Your task to perform on an android device: turn vacation reply on in the gmail app Image 0: 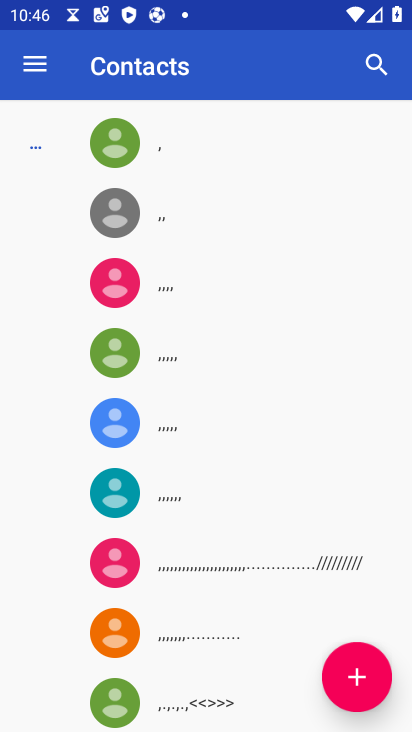
Step 0: press home button
Your task to perform on an android device: turn vacation reply on in the gmail app Image 1: 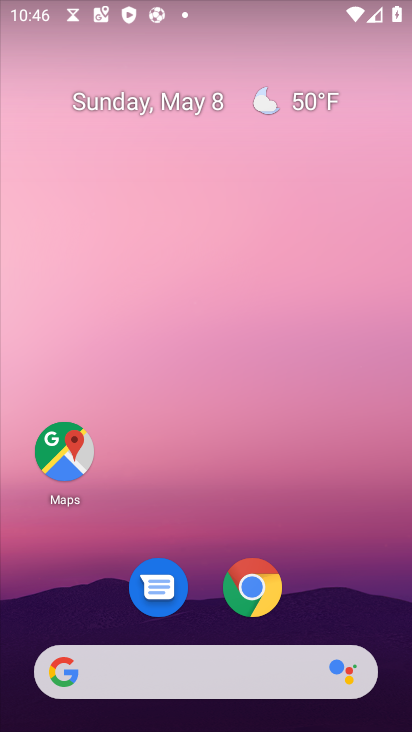
Step 1: drag from (327, 597) to (111, 103)
Your task to perform on an android device: turn vacation reply on in the gmail app Image 2: 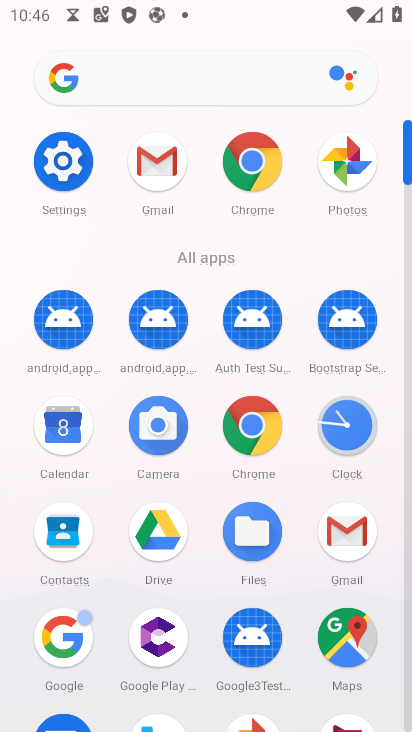
Step 2: click (162, 160)
Your task to perform on an android device: turn vacation reply on in the gmail app Image 3: 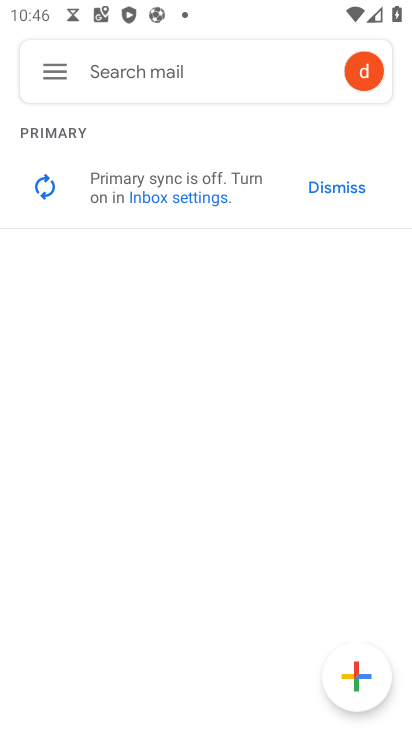
Step 3: click (61, 74)
Your task to perform on an android device: turn vacation reply on in the gmail app Image 4: 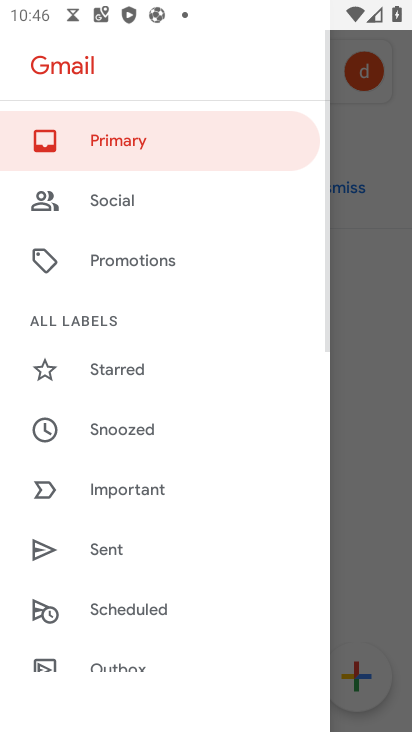
Step 4: drag from (235, 640) to (237, 203)
Your task to perform on an android device: turn vacation reply on in the gmail app Image 5: 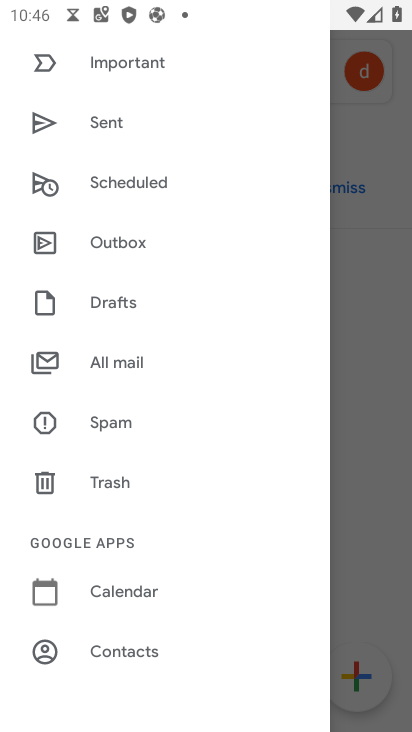
Step 5: drag from (223, 637) to (203, 462)
Your task to perform on an android device: turn vacation reply on in the gmail app Image 6: 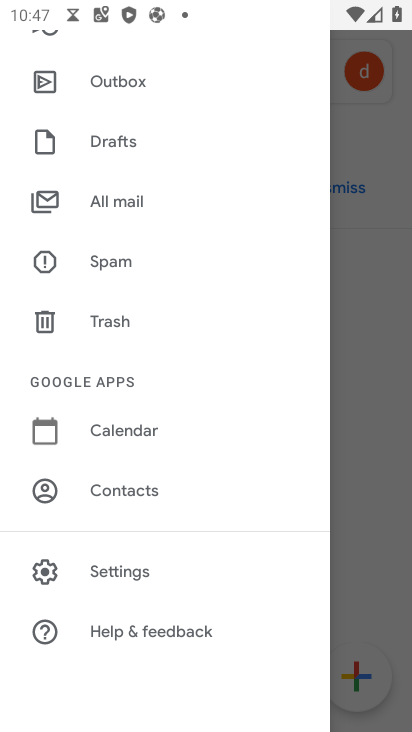
Step 6: click (127, 566)
Your task to perform on an android device: turn vacation reply on in the gmail app Image 7: 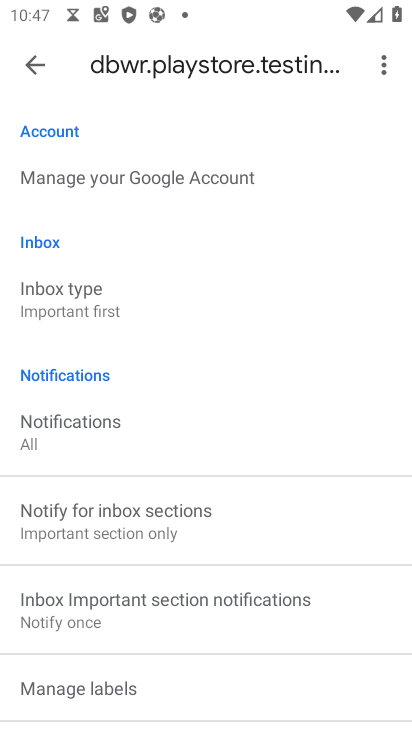
Step 7: drag from (198, 670) to (176, 211)
Your task to perform on an android device: turn vacation reply on in the gmail app Image 8: 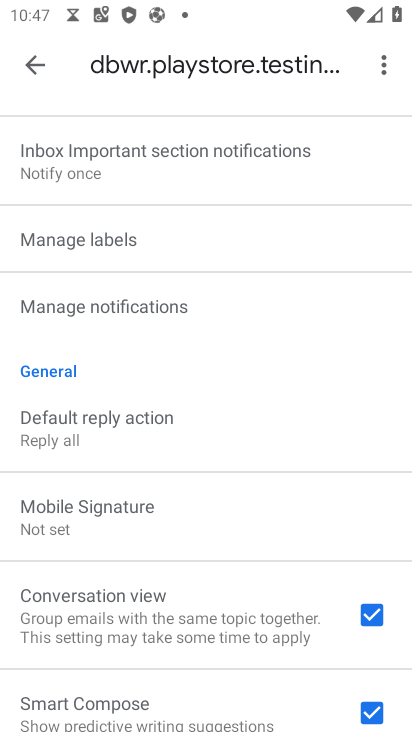
Step 8: drag from (158, 675) to (165, 315)
Your task to perform on an android device: turn vacation reply on in the gmail app Image 9: 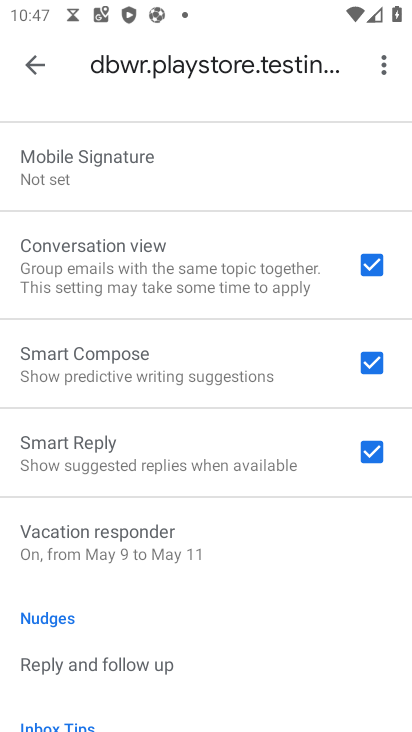
Step 9: click (129, 532)
Your task to perform on an android device: turn vacation reply on in the gmail app Image 10: 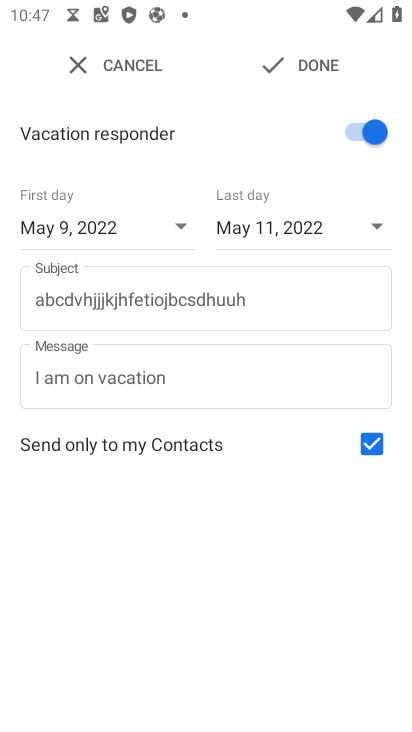
Step 10: task complete